Your task to perform on an android device: open the mobile data screen to see how much data has been used Image 0: 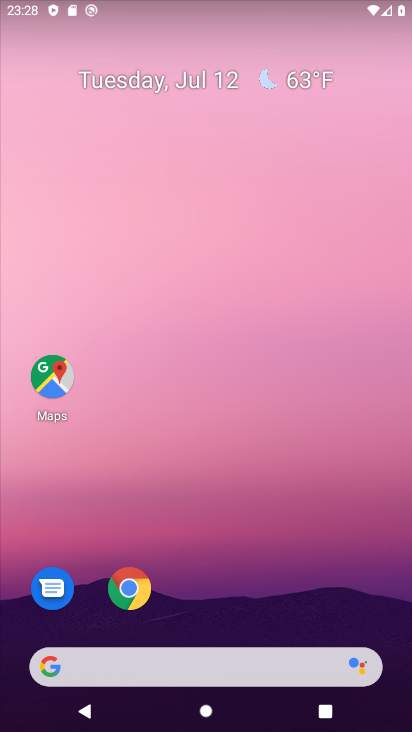
Step 0: drag from (21, 683) to (307, 4)
Your task to perform on an android device: open the mobile data screen to see how much data has been used Image 1: 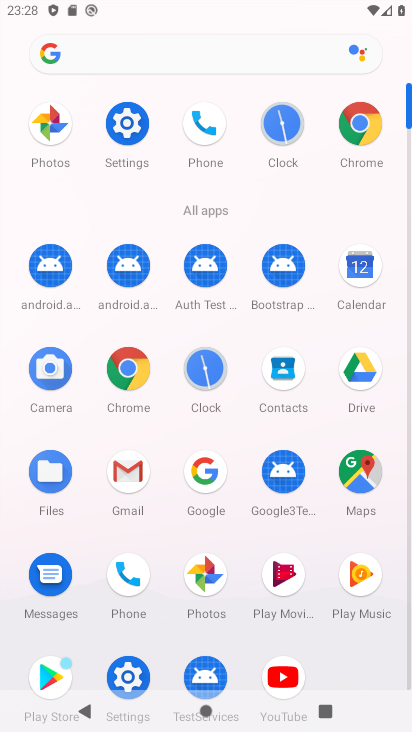
Step 1: click (126, 674)
Your task to perform on an android device: open the mobile data screen to see how much data has been used Image 2: 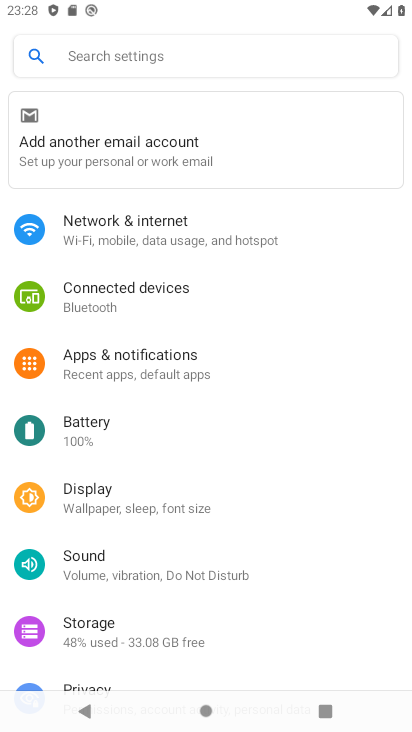
Step 2: click (127, 229)
Your task to perform on an android device: open the mobile data screen to see how much data has been used Image 3: 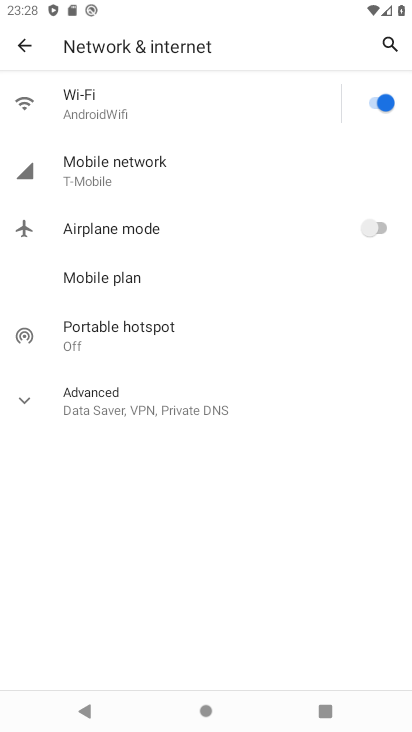
Step 3: click (155, 170)
Your task to perform on an android device: open the mobile data screen to see how much data has been used Image 4: 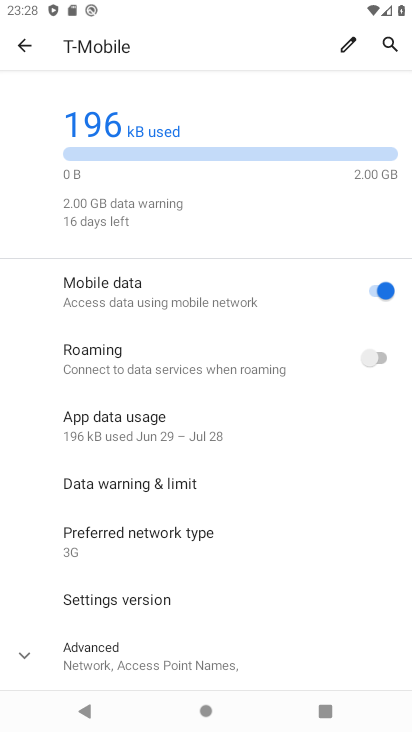
Step 4: task complete